Your task to perform on an android device: Go to internet settings Image 0: 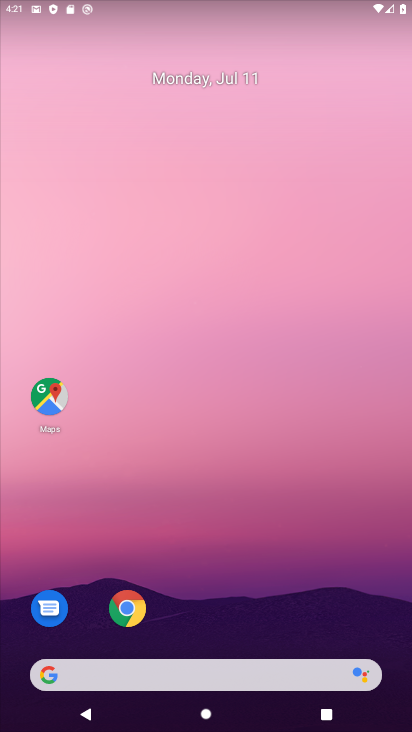
Step 0: click (401, 524)
Your task to perform on an android device: Go to internet settings Image 1: 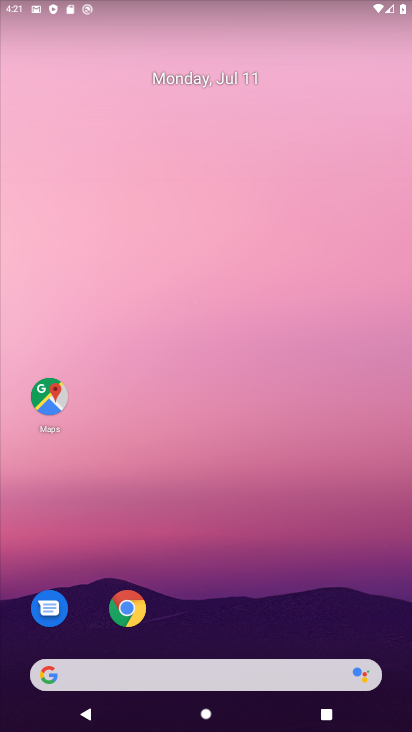
Step 1: drag from (262, 705) to (149, 289)
Your task to perform on an android device: Go to internet settings Image 2: 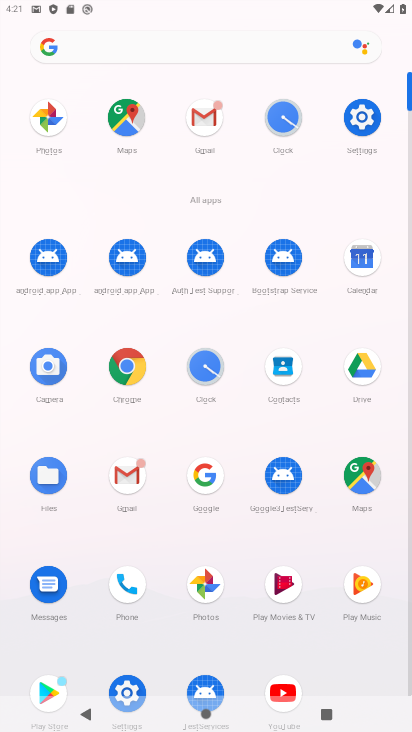
Step 2: drag from (234, 646) to (215, 505)
Your task to perform on an android device: Go to internet settings Image 3: 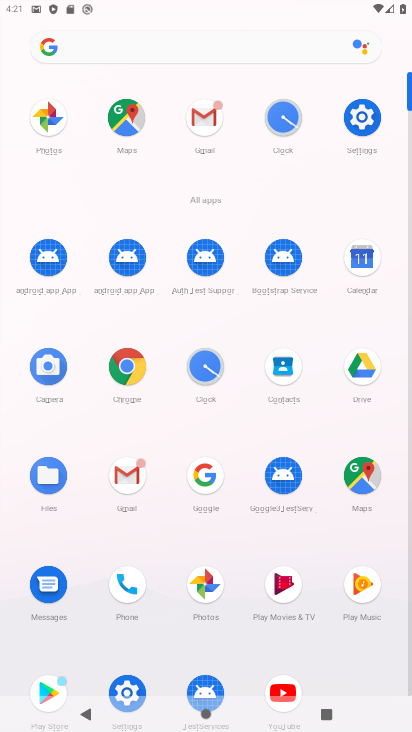
Step 3: click (365, 122)
Your task to perform on an android device: Go to internet settings Image 4: 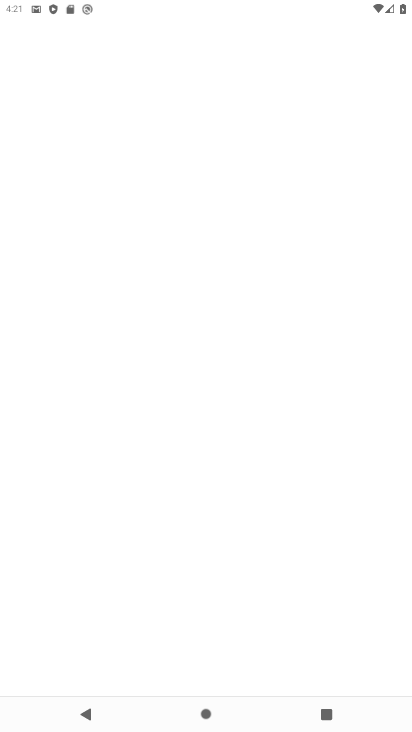
Step 4: press back button
Your task to perform on an android device: Go to internet settings Image 5: 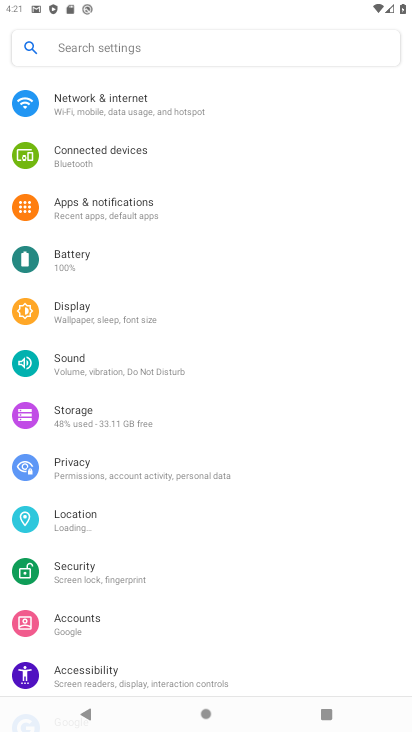
Step 5: press back button
Your task to perform on an android device: Go to internet settings Image 6: 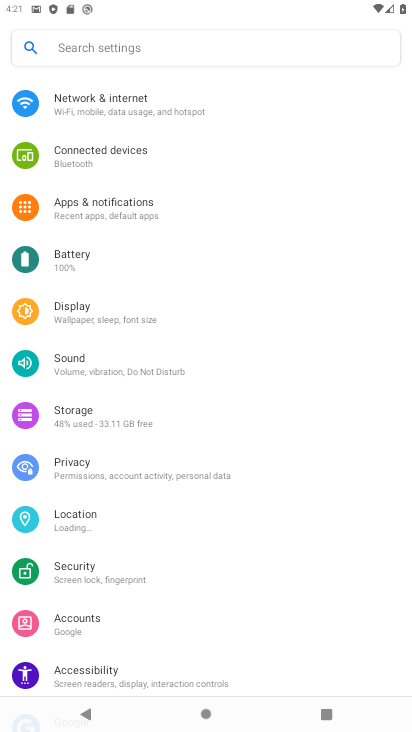
Step 6: press home button
Your task to perform on an android device: Go to internet settings Image 7: 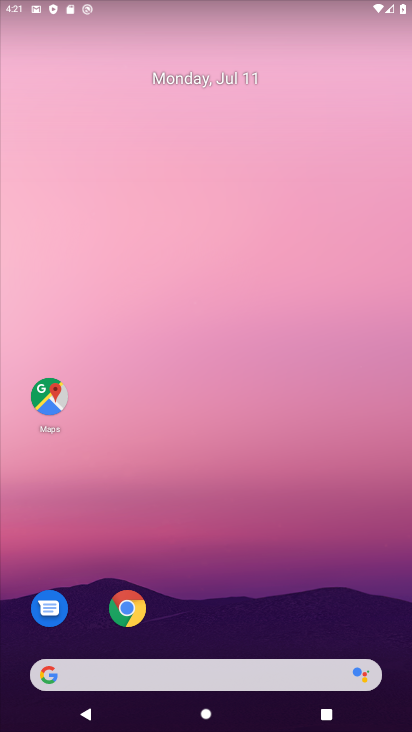
Step 7: drag from (258, 713) to (175, 213)
Your task to perform on an android device: Go to internet settings Image 8: 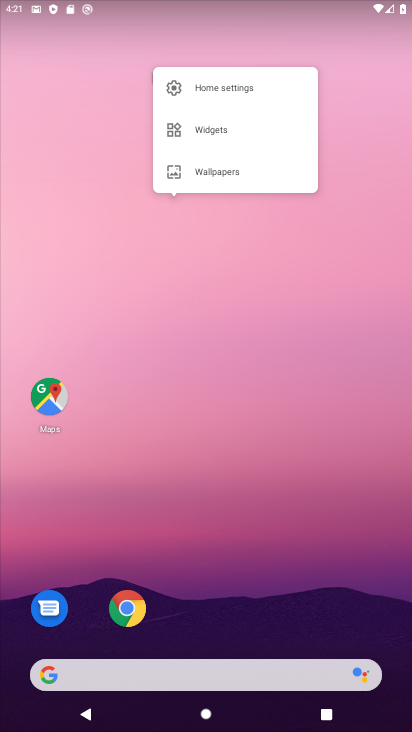
Step 8: drag from (250, 675) to (152, 240)
Your task to perform on an android device: Go to internet settings Image 9: 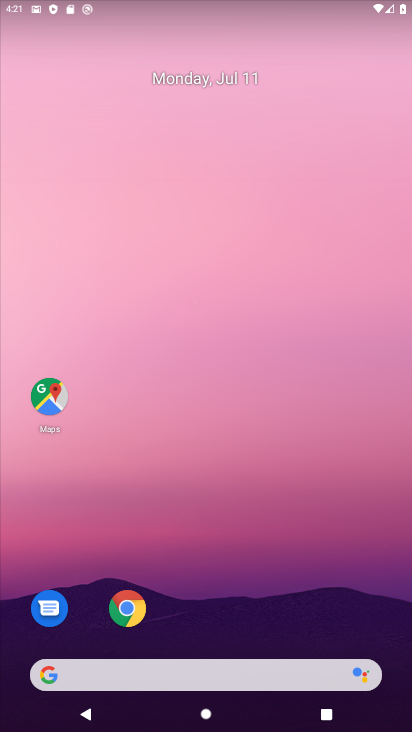
Step 9: drag from (234, 628) to (158, 152)
Your task to perform on an android device: Go to internet settings Image 10: 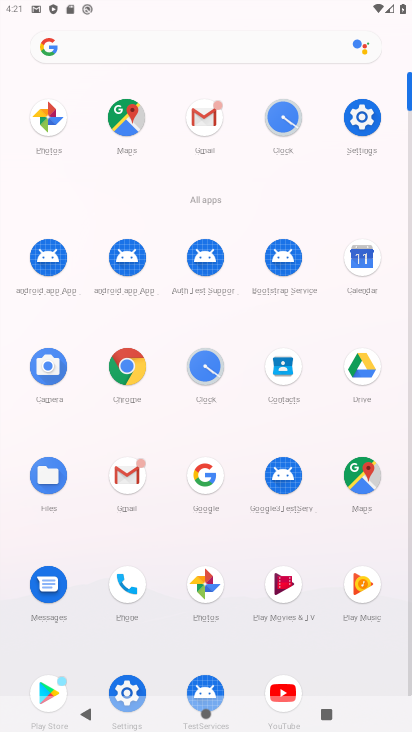
Step 10: click (362, 113)
Your task to perform on an android device: Go to internet settings Image 11: 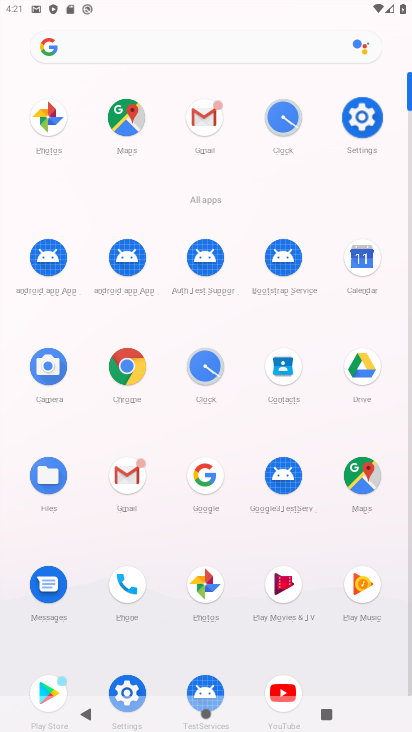
Step 11: click (362, 114)
Your task to perform on an android device: Go to internet settings Image 12: 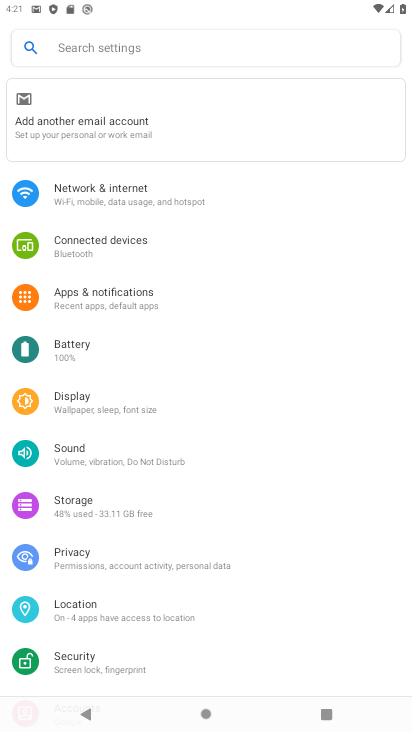
Step 12: click (120, 201)
Your task to perform on an android device: Go to internet settings Image 13: 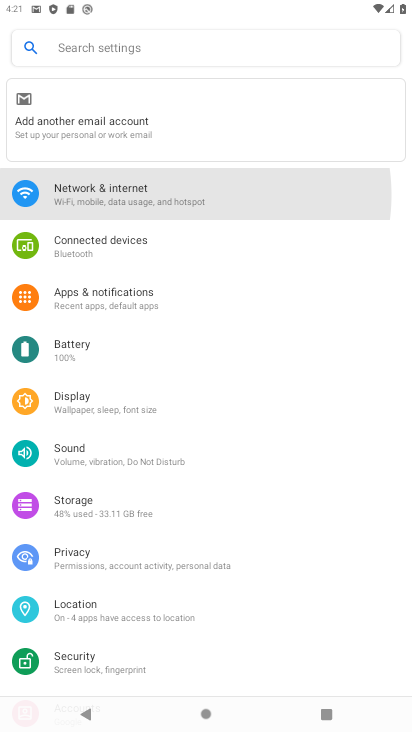
Step 13: click (121, 200)
Your task to perform on an android device: Go to internet settings Image 14: 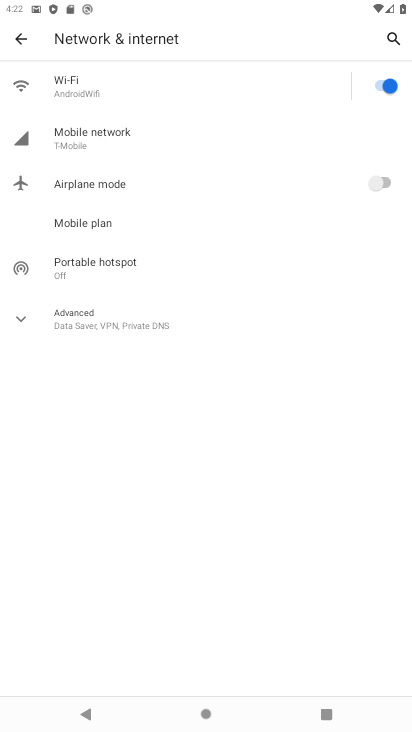
Step 14: click (76, 132)
Your task to perform on an android device: Go to internet settings Image 15: 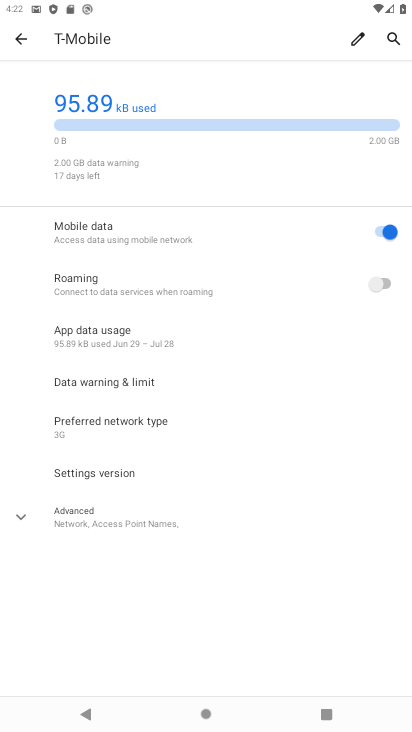
Step 15: task complete